Your task to perform on an android device: set the stopwatch Image 0: 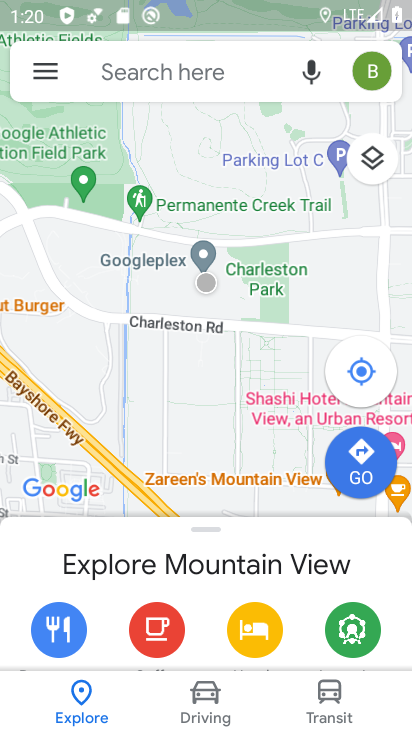
Step 0: press home button
Your task to perform on an android device: set the stopwatch Image 1: 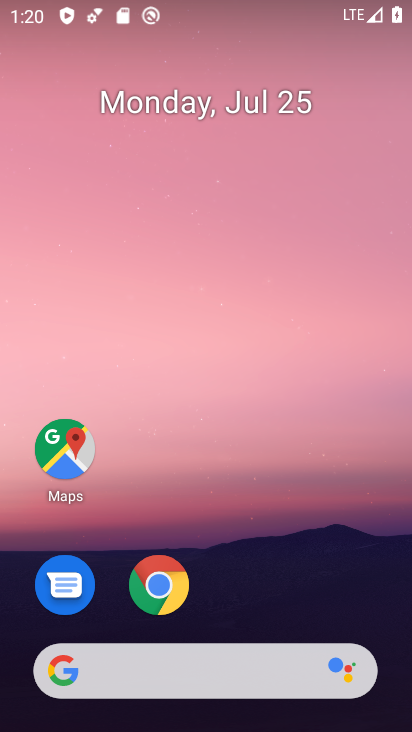
Step 1: drag from (240, 649) to (264, 44)
Your task to perform on an android device: set the stopwatch Image 2: 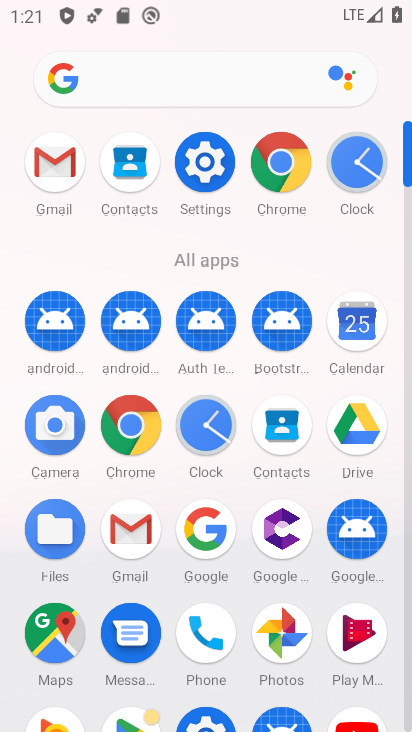
Step 2: click (196, 429)
Your task to perform on an android device: set the stopwatch Image 3: 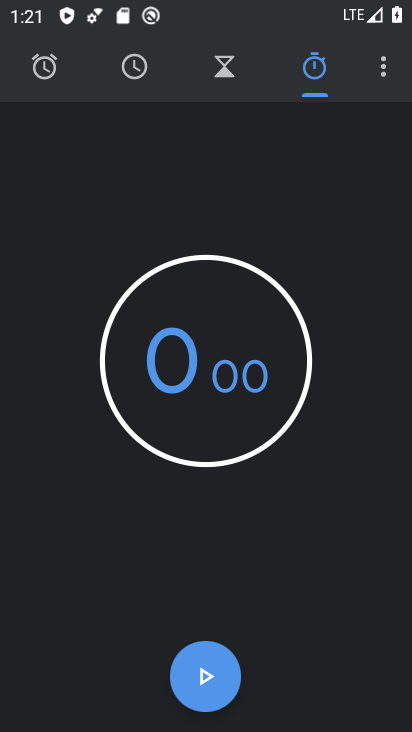
Step 3: click (186, 696)
Your task to perform on an android device: set the stopwatch Image 4: 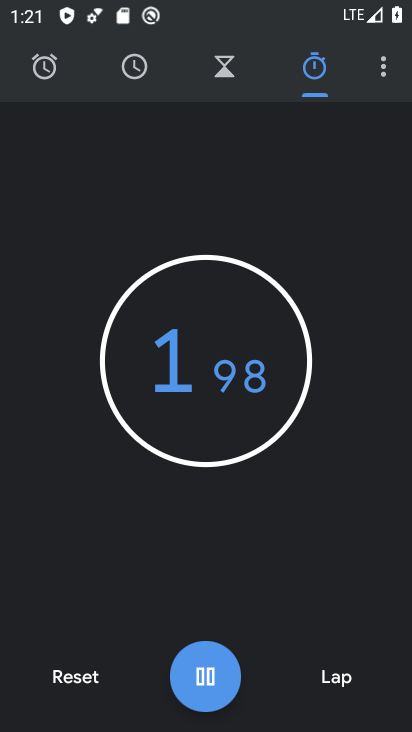
Step 4: click (186, 696)
Your task to perform on an android device: set the stopwatch Image 5: 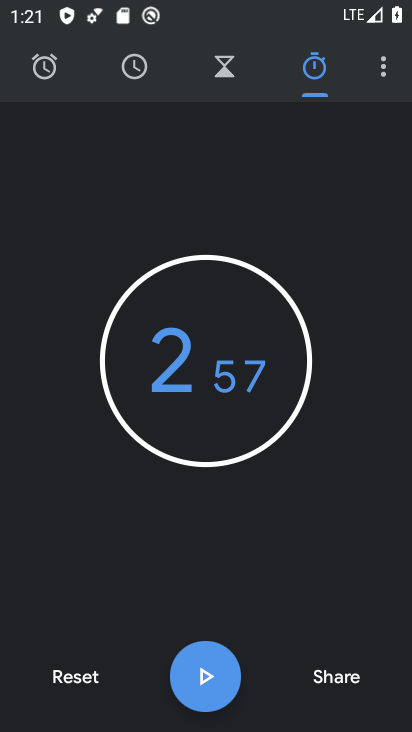
Step 5: task complete